Your task to perform on an android device: Go to settings Image 0: 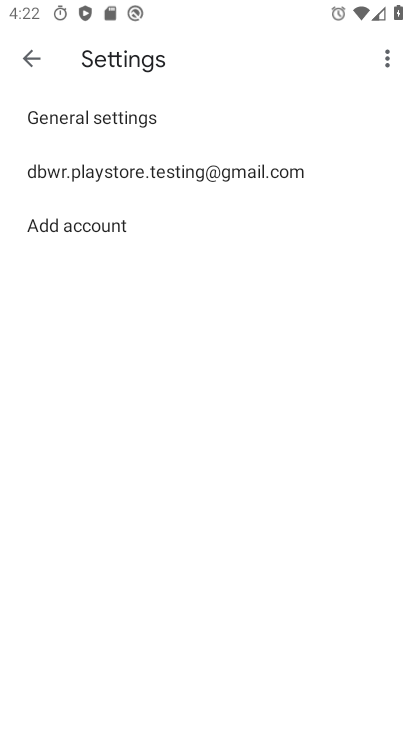
Step 0: click (26, 56)
Your task to perform on an android device: Go to settings Image 1: 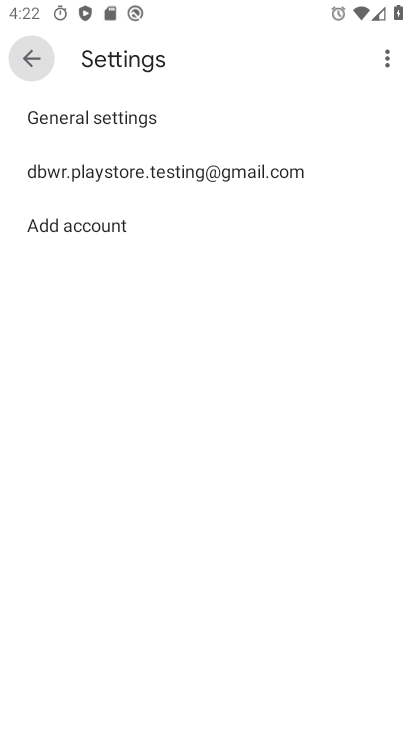
Step 1: click (27, 55)
Your task to perform on an android device: Go to settings Image 2: 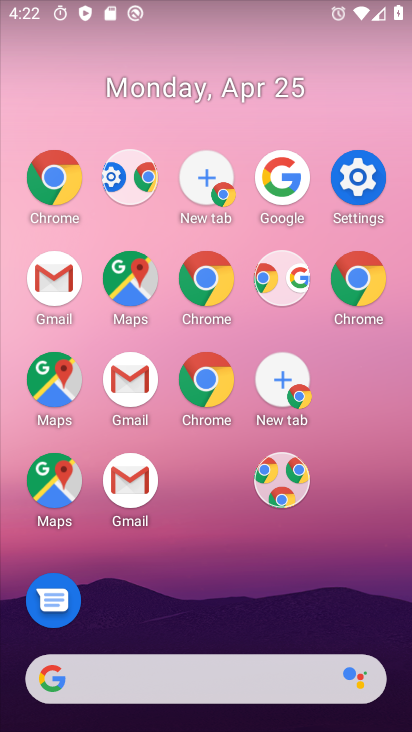
Step 2: drag from (234, 560) to (109, 45)
Your task to perform on an android device: Go to settings Image 3: 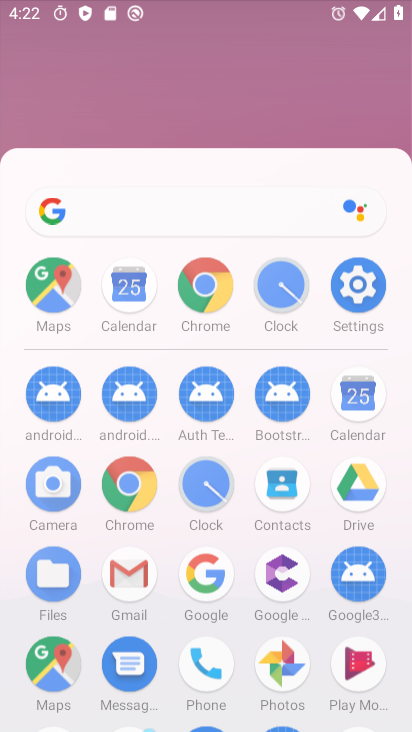
Step 3: drag from (290, 501) to (127, 29)
Your task to perform on an android device: Go to settings Image 4: 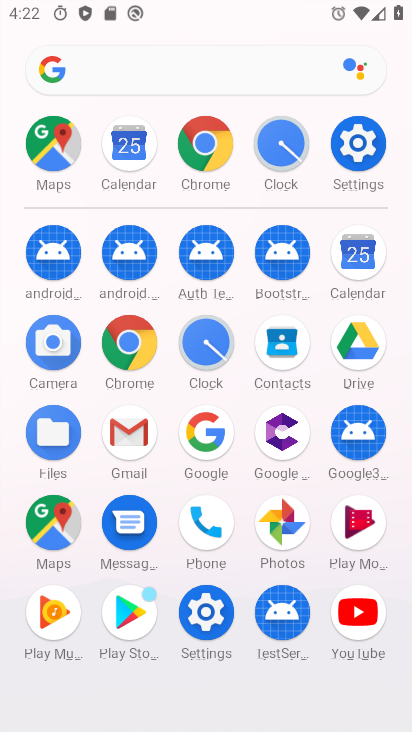
Step 4: click (124, 343)
Your task to perform on an android device: Go to settings Image 5: 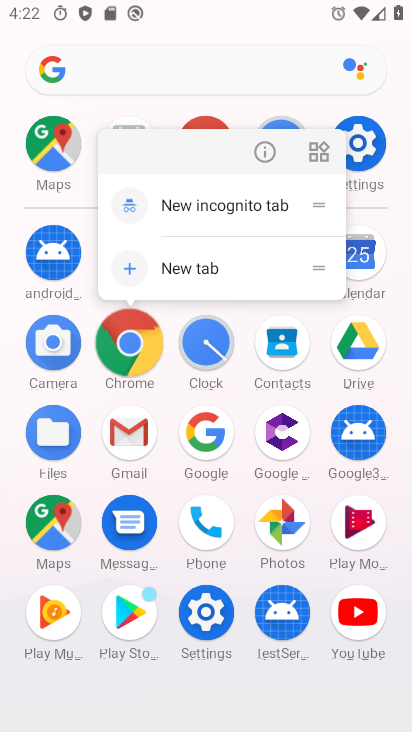
Step 5: click (122, 351)
Your task to perform on an android device: Go to settings Image 6: 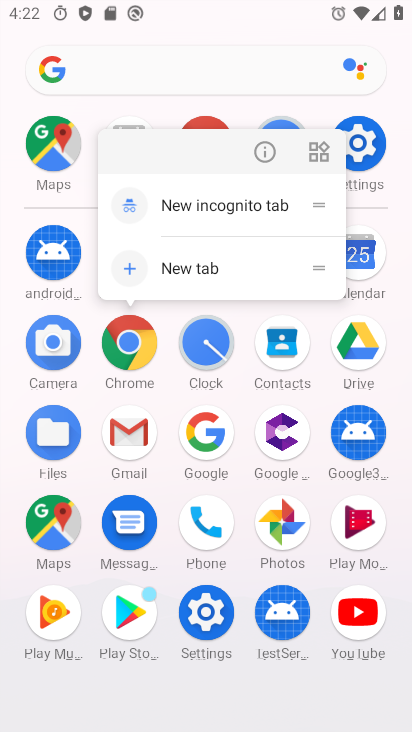
Step 6: click (134, 344)
Your task to perform on an android device: Go to settings Image 7: 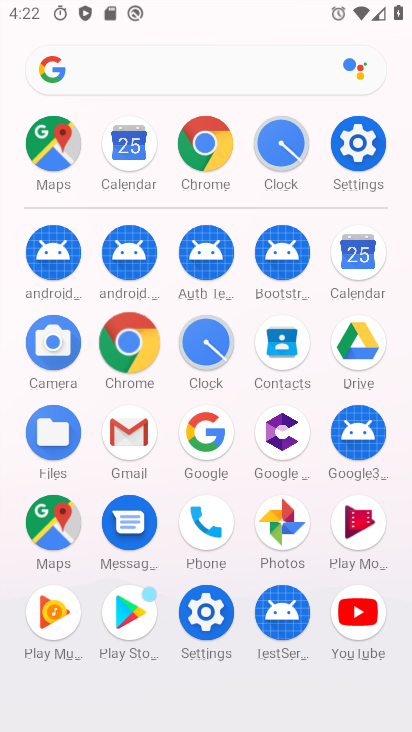
Step 7: click (135, 344)
Your task to perform on an android device: Go to settings Image 8: 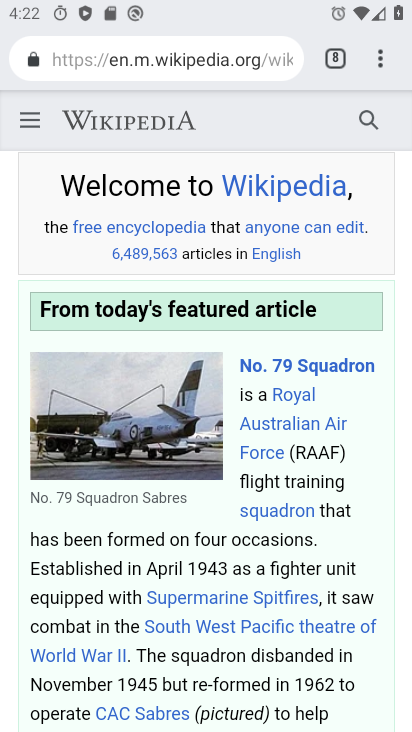
Step 8: drag from (146, 340) to (100, 343)
Your task to perform on an android device: Go to settings Image 9: 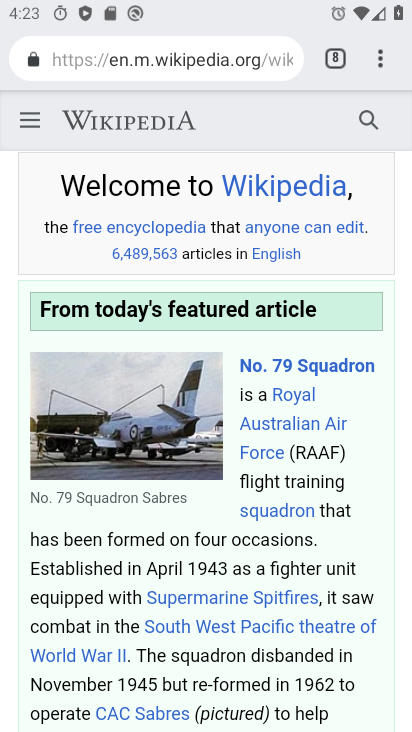
Step 9: drag from (183, 283) to (253, 538)
Your task to perform on an android device: Go to settings Image 10: 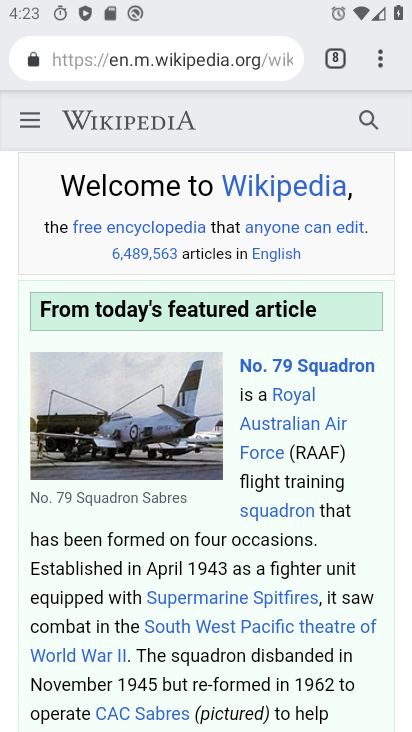
Step 10: drag from (379, 58) to (281, 564)
Your task to perform on an android device: Go to settings Image 11: 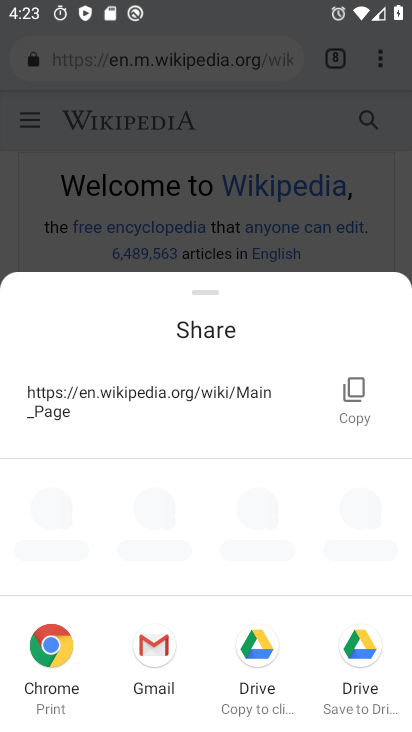
Step 11: press home button
Your task to perform on an android device: Go to settings Image 12: 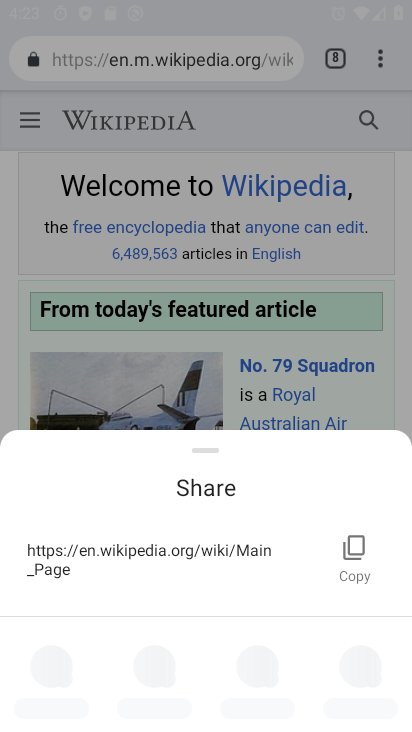
Step 12: press home button
Your task to perform on an android device: Go to settings Image 13: 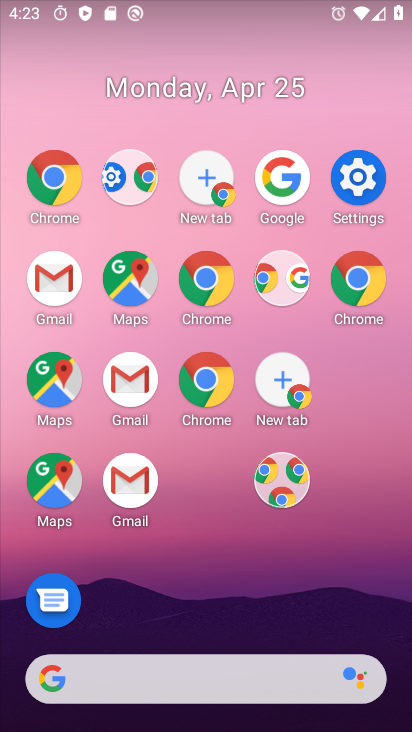
Step 13: drag from (360, 638) to (167, 1)
Your task to perform on an android device: Go to settings Image 14: 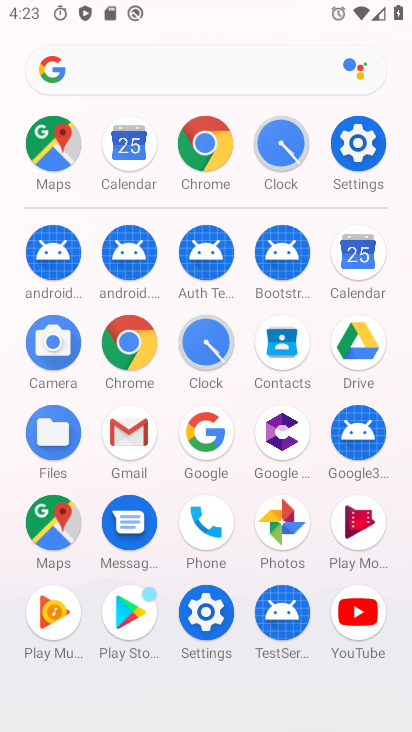
Step 14: click (343, 142)
Your task to perform on an android device: Go to settings Image 15: 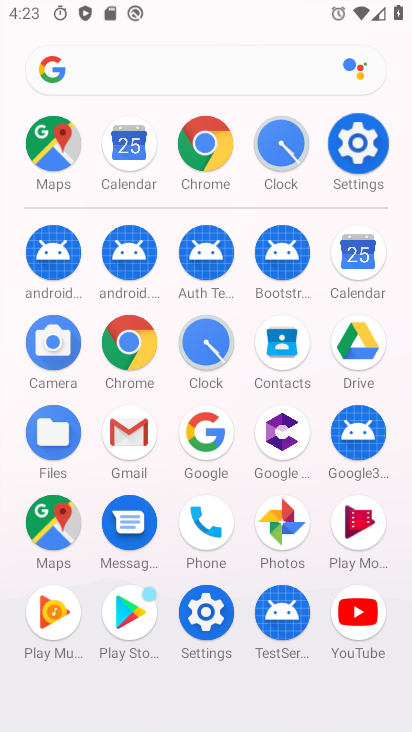
Step 15: click (343, 142)
Your task to perform on an android device: Go to settings Image 16: 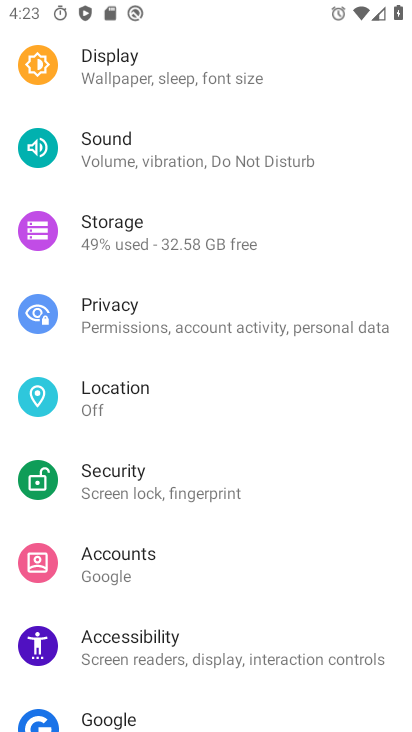
Step 16: click (344, 145)
Your task to perform on an android device: Go to settings Image 17: 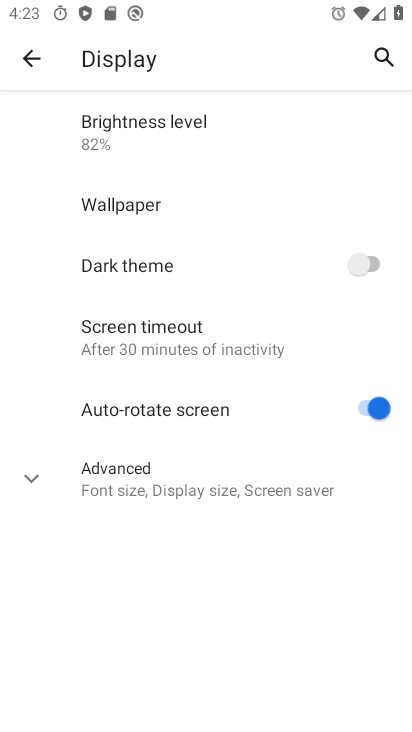
Step 17: click (39, 53)
Your task to perform on an android device: Go to settings Image 18: 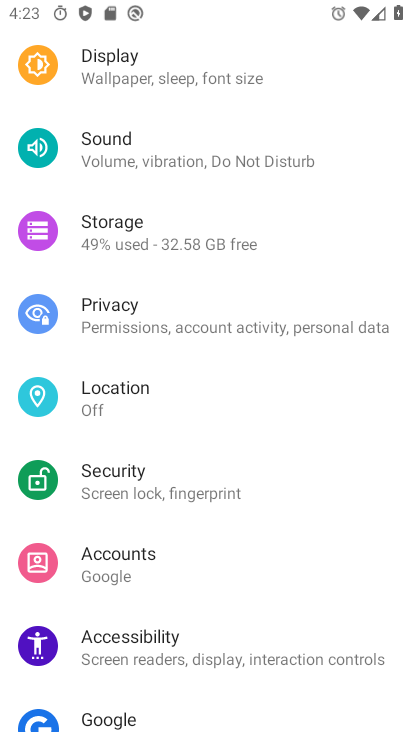
Step 18: task complete